Your task to perform on an android device: set an alarm Image 0: 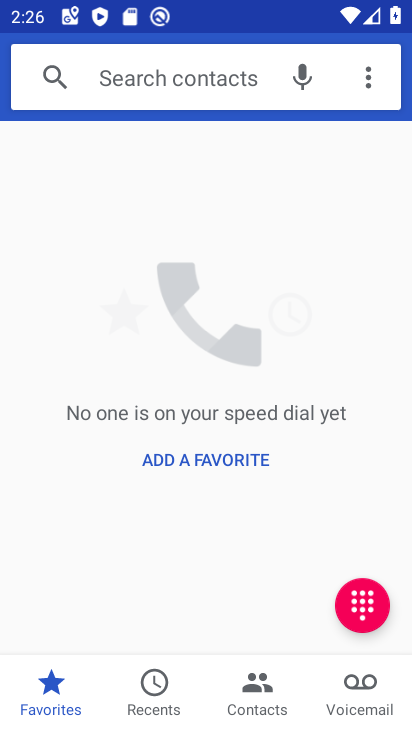
Step 0: press home button
Your task to perform on an android device: set an alarm Image 1: 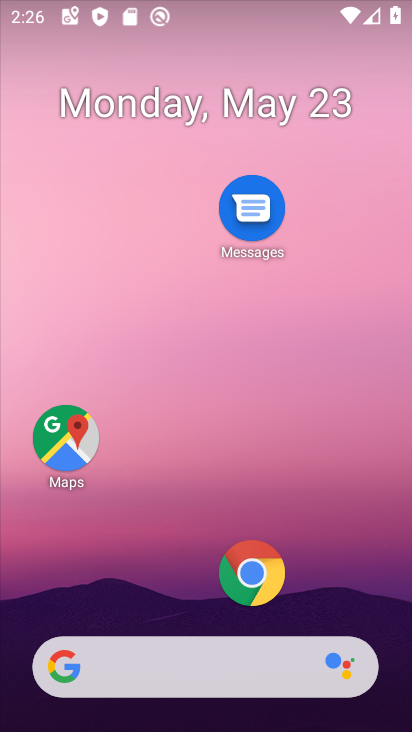
Step 1: drag from (323, 648) to (295, 59)
Your task to perform on an android device: set an alarm Image 2: 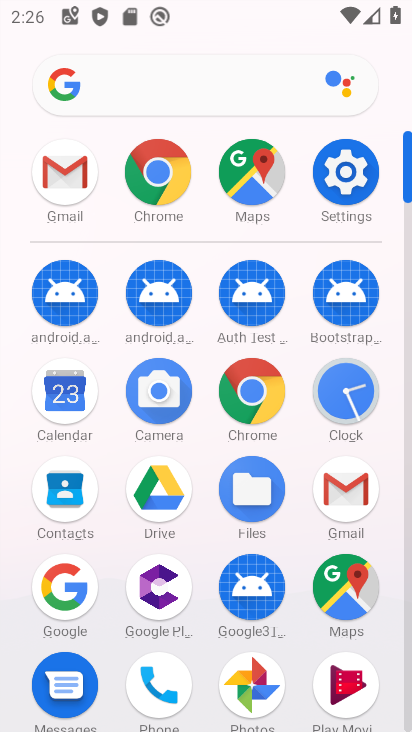
Step 2: click (348, 402)
Your task to perform on an android device: set an alarm Image 3: 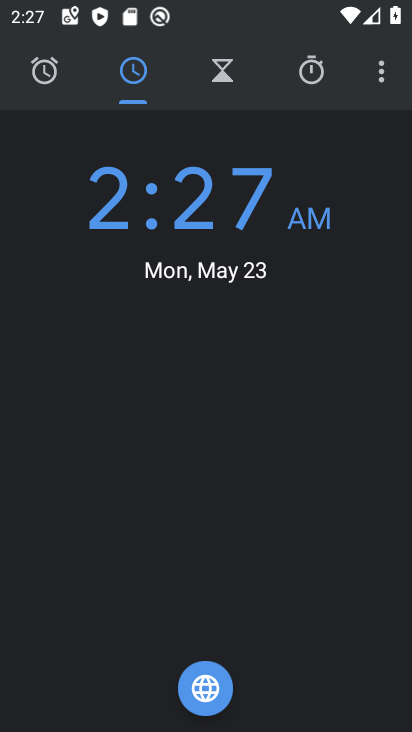
Step 3: click (34, 74)
Your task to perform on an android device: set an alarm Image 4: 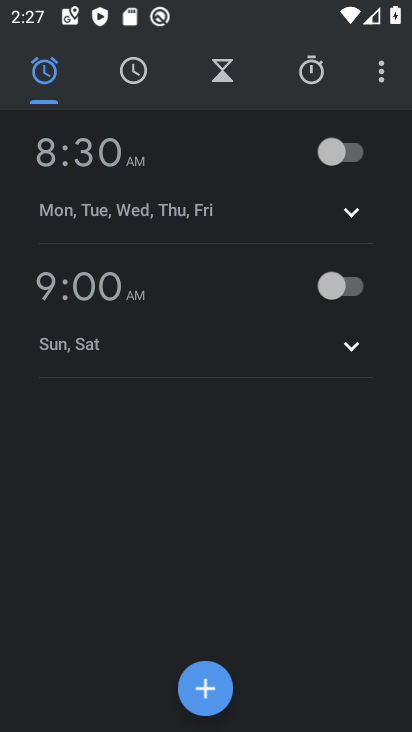
Step 4: click (364, 154)
Your task to perform on an android device: set an alarm Image 5: 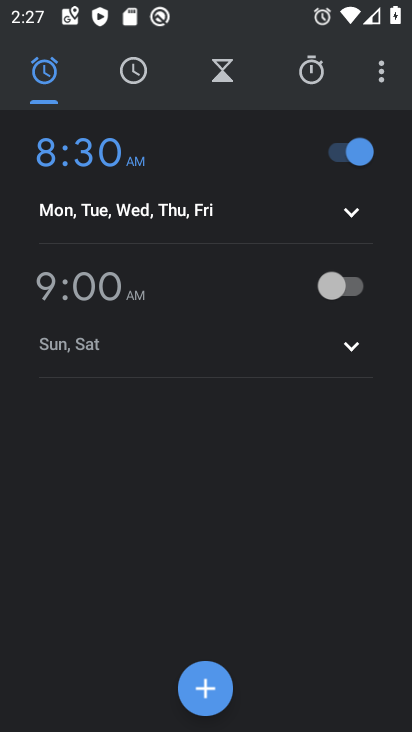
Step 5: task complete